Your task to perform on an android device: find snoozed emails in the gmail app Image 0: 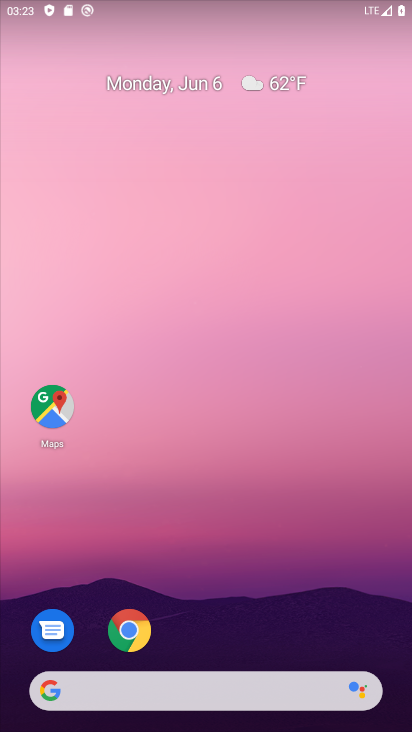
Step 0: drag from (318, 599) to (347, 45)
Your task to perform on an android device: find snoozed emails in the gmail app Image 1: 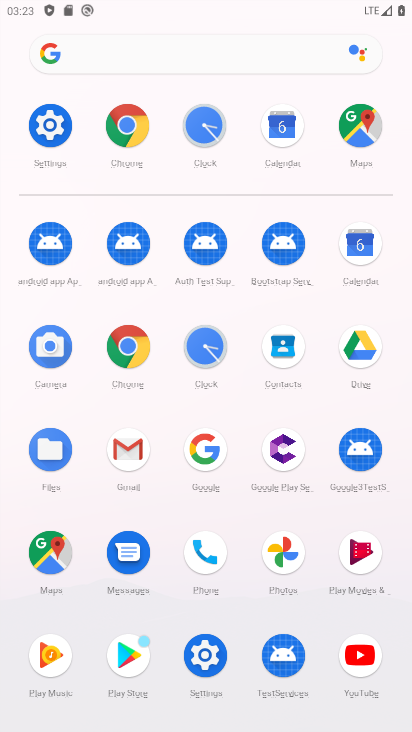
Step 1: click (125, 453)
Your task to perform on an android device: find snoozed emails in the gmail app Image 2: 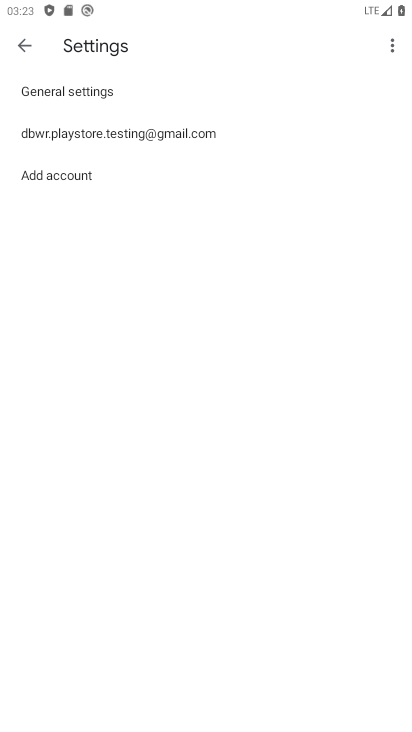
Step 2: click (26, 56)
Your task to perform on an android device: find snoozed emails in the gmail app Image 3: 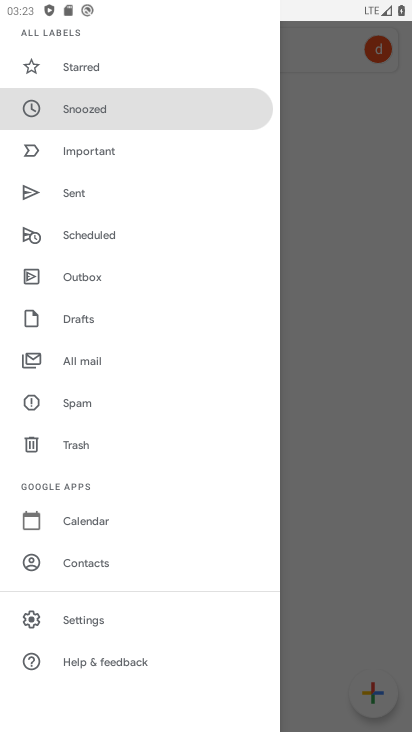
Step 3: task complete